Your task to perform on an android device: Check the news Image 0: 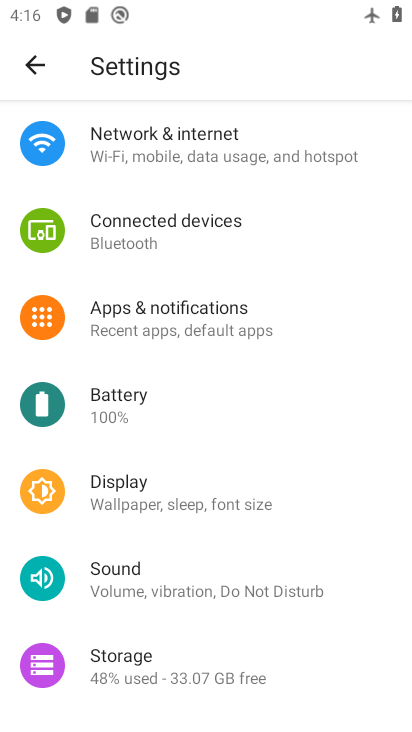
Step 0: press home button
Your task to perform on an android device: Check the news Image 1: 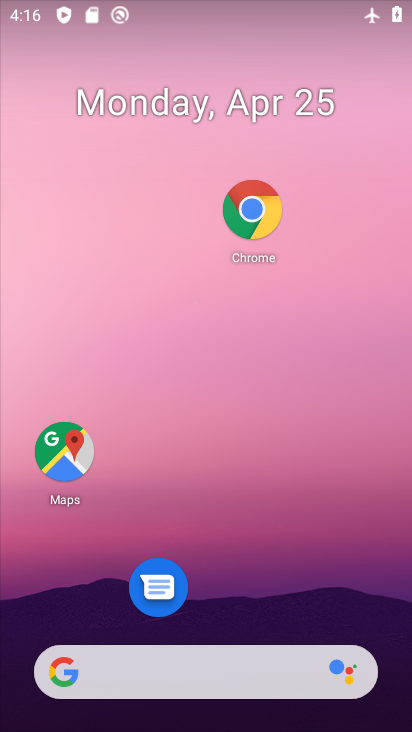
Step 1: click (269, 215)
Your task to perform on an android device: Check the news Image 2: 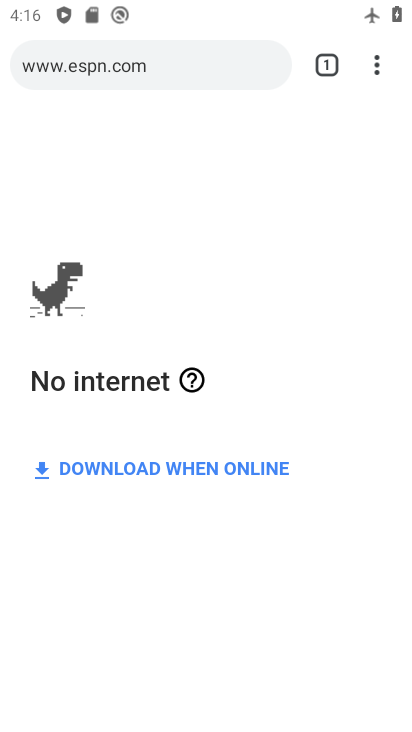
Step 2: task complete